Your task to perform on an android device: add a contact in the contacts app Image 0: 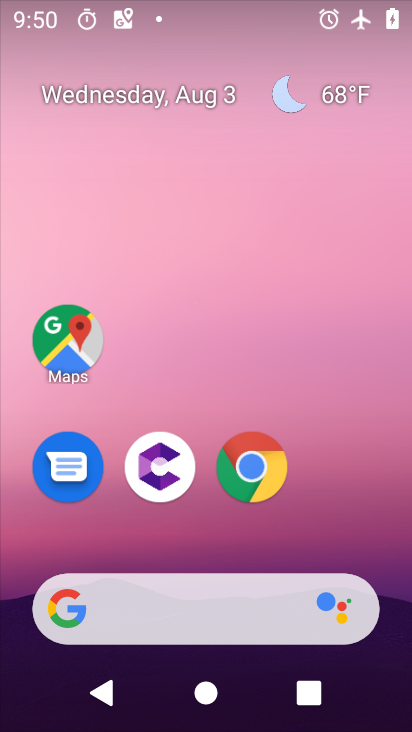
Step 0: drag from (349, 454) to (359, 89)
Your task to perform on an android device: add a contact in the contacts app Image 1: 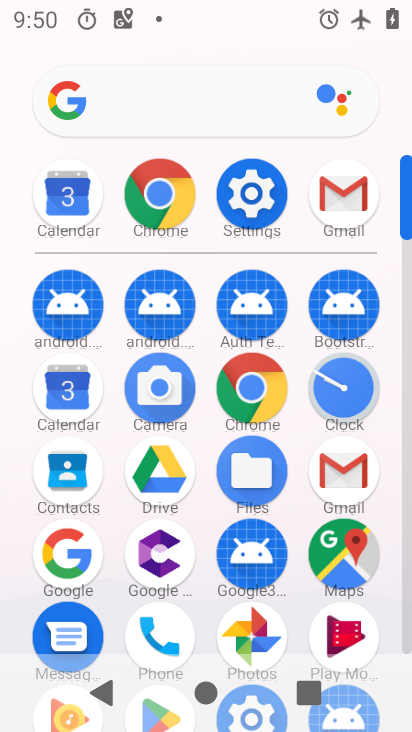
Step 1: click (74, 476)
Your task to perform on an android device: add a contact in the contacts app Image 2: 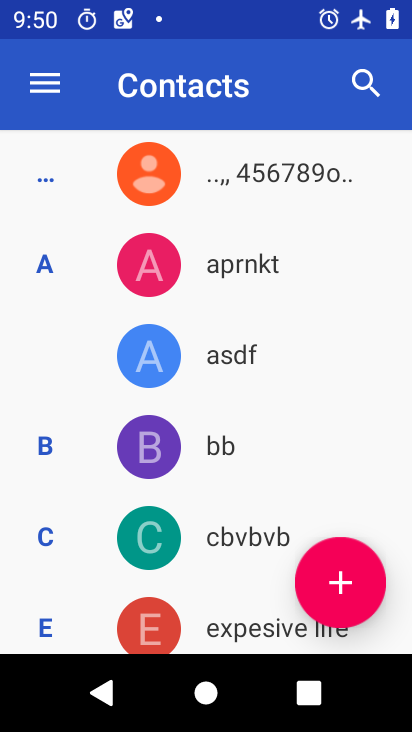
Step 2: click (344, 576)
Your task to perform on an android device: add a contact in the contacts app Image 3: 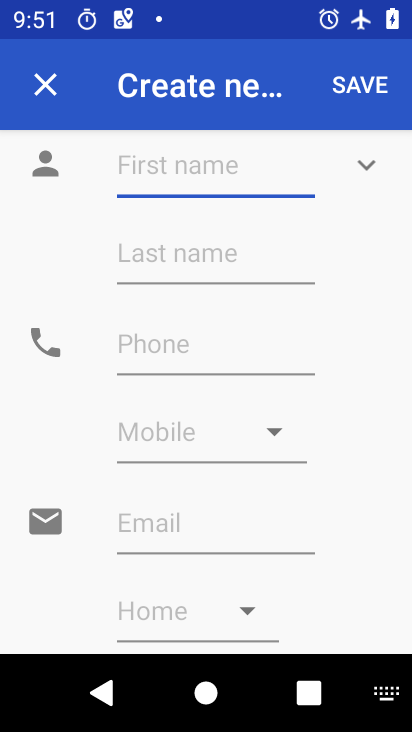
Step 3: type "world"
Your task to perform on an android device: add a contact in the contacts app Image 4: 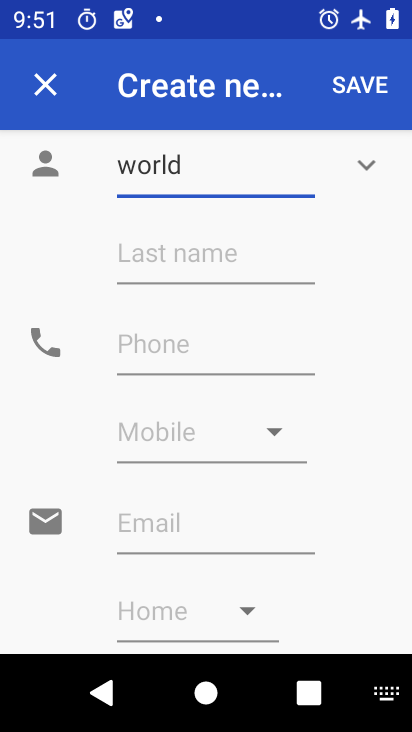
Step 4: click (364, 71)
Your task to perform on an android device: add a contact in the contacts app Image 5: 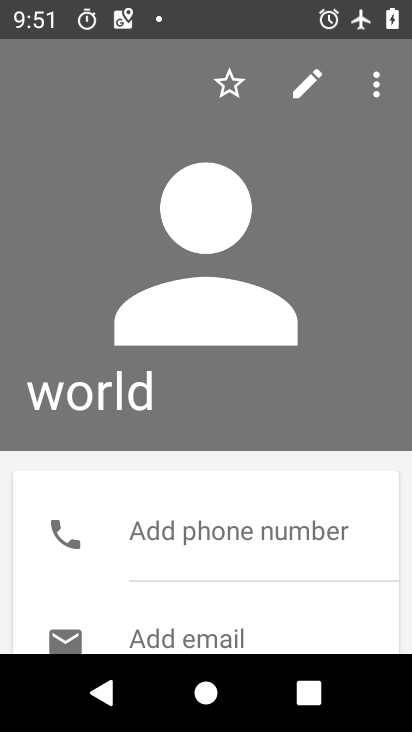
Step 5: task complete